Your task to perform on an android device: turn off sleep mode Image 0: 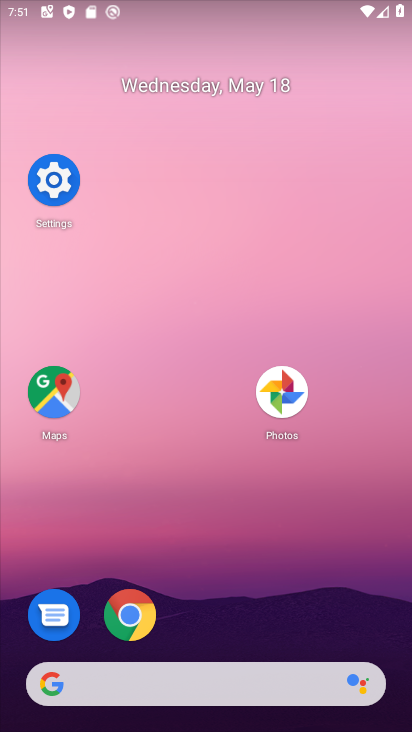
Step 0: click (67, 203)
Your task to perform on an android device: turn off sleep mode Image 1: 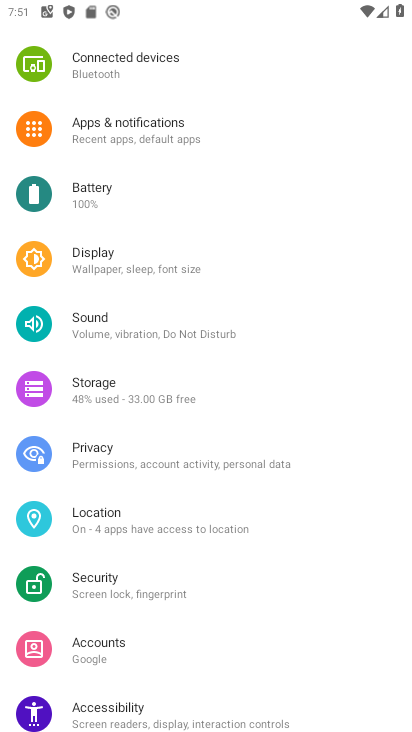
Step 1: click (187, 282)
Your task to perform on an android device: turn off sleep mode Image 2: 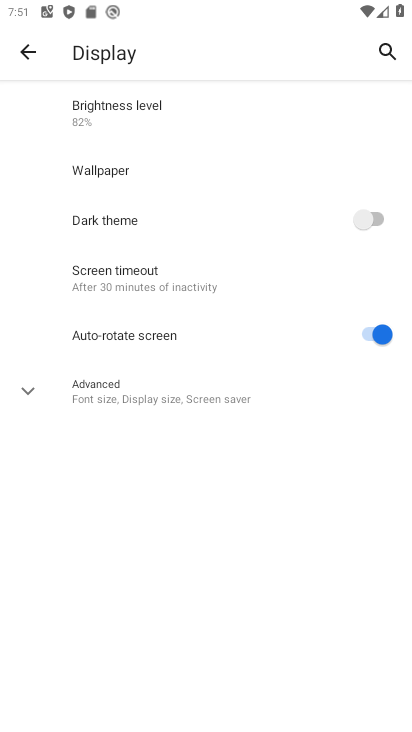
Step 2: click (187, 282)
Your task to perform on an android device: turn off sleep mode Image 3: 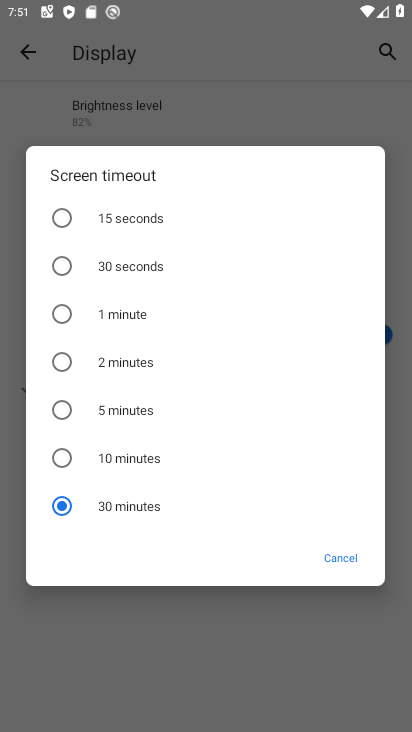
Step 3: task complete